Your task to perform on an android device: set the timer Image 0: 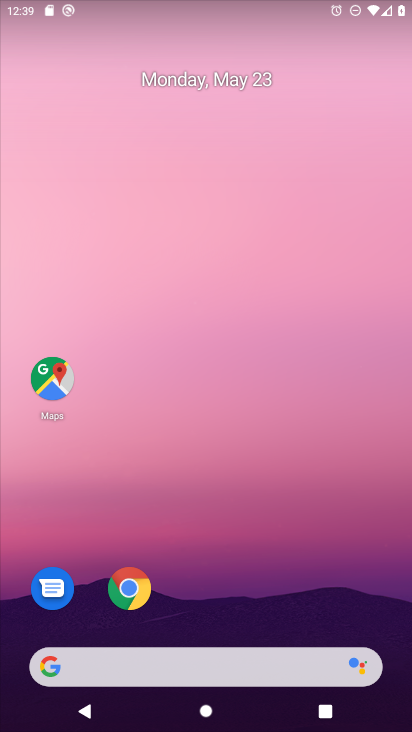
Step 0: drag from (252, 675) to (226, 141)
Your task to perform on an android device: set the timer Image 1: 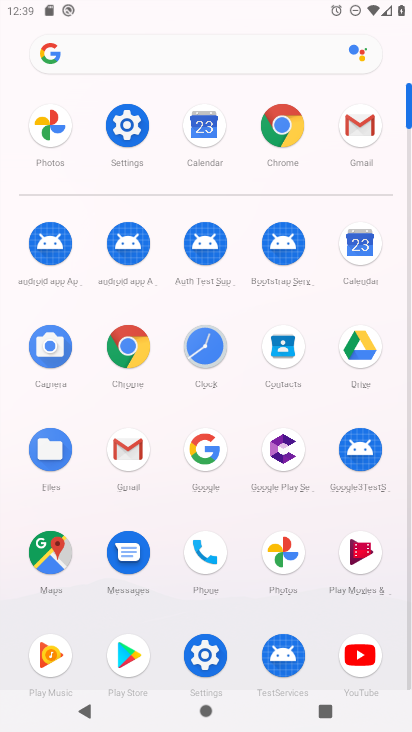
Step 1: click (213, 357)
Your task to perform on an android device: set the timer Image 2: 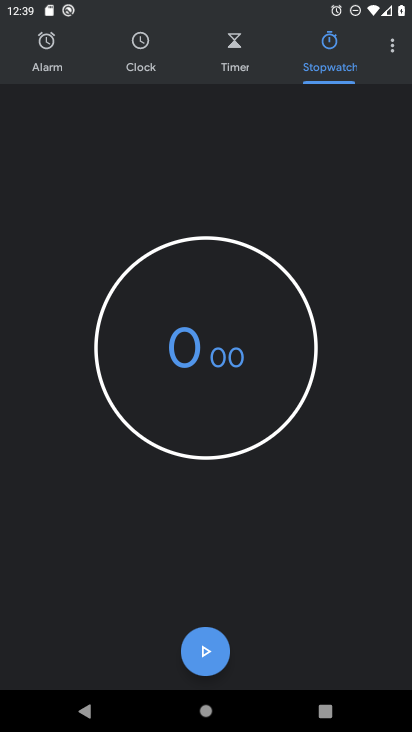
Step 2: click (214, 58)
Your task to perform on an android device: set the timer Image 3: 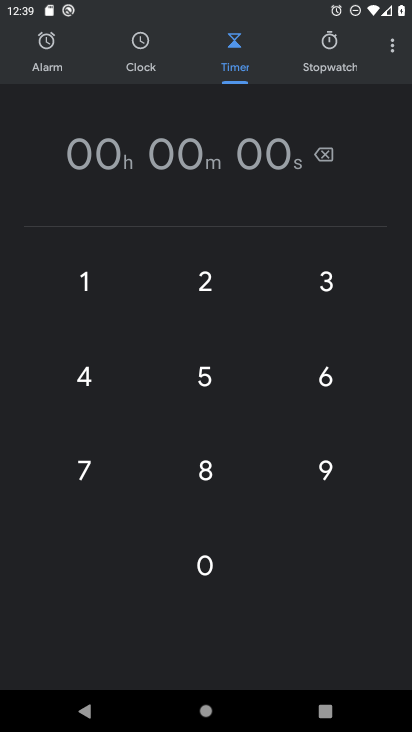
Step 3: click (218, 377)
Your task to perform on an android device: set the timer Image 4: 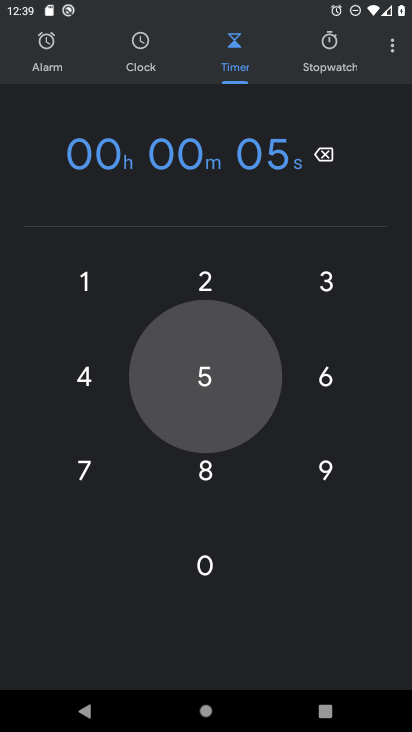
Step 4: click (162, 369)
Your task to perform on an android device: set the timer Image 5: 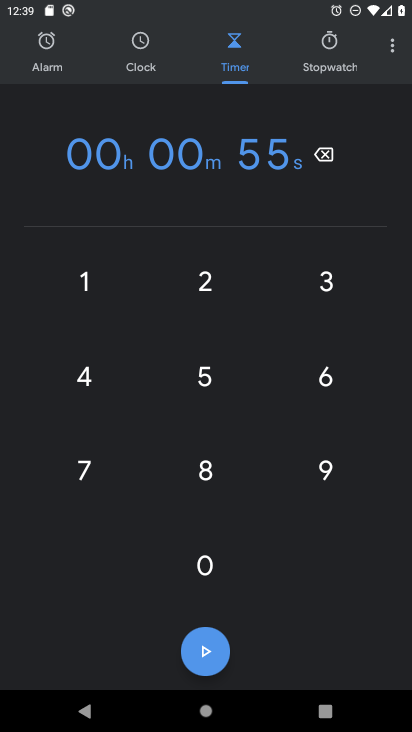
Step 5: click (221, 485)
Your task to perform on an android device: set the timer Image 6: 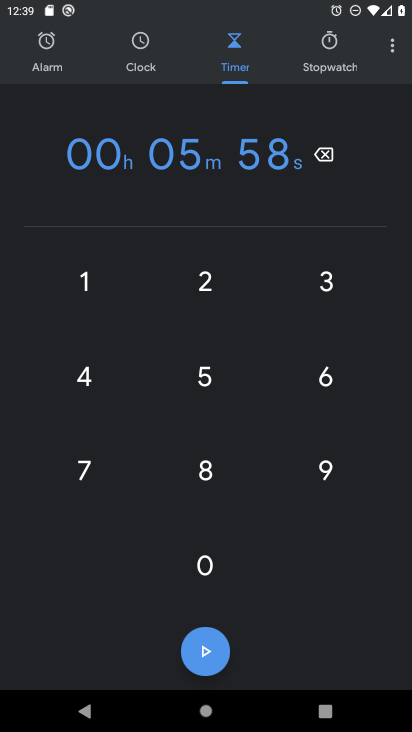
Step 6: click (193, 309)
Your task to perform on an android device: set the timer Image 7: 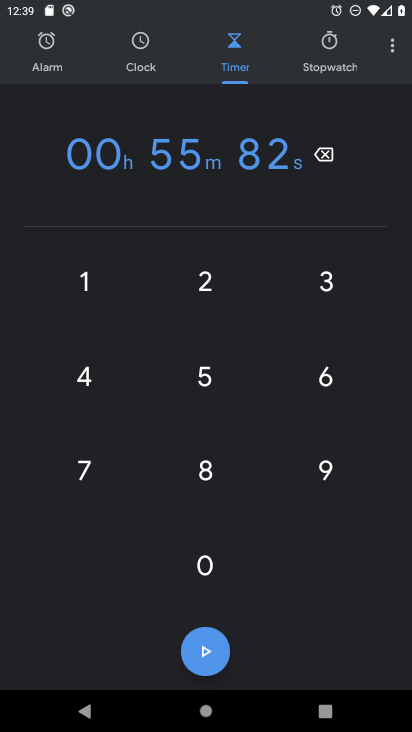
Step 7: click (320, 295)
Your task to perform on an android device: set the timer Image 8: 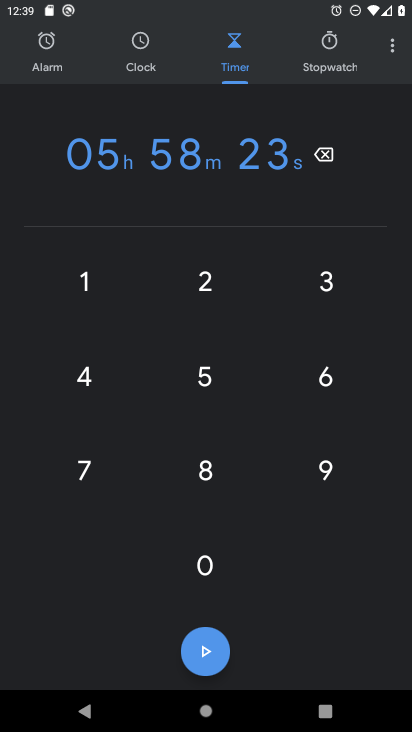
Step 8: task complete